Your task to perform on an android device: Is it going to rain this weekend? Image 0: 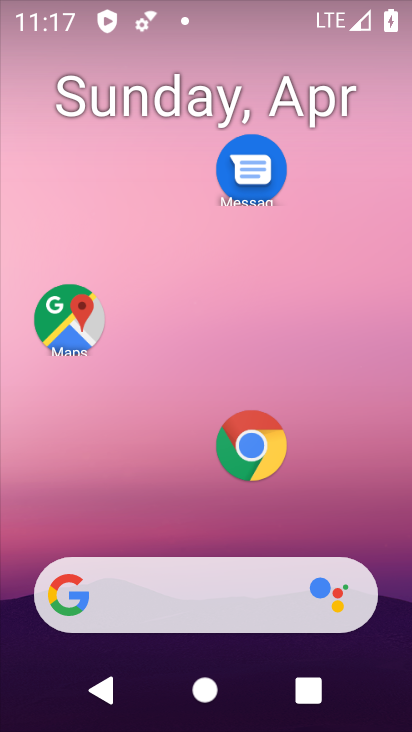
Step 0: drag from (200, 605) to (360, 144)
Your task to perform on an android device: Is it going to rain this weekend? Image 1: 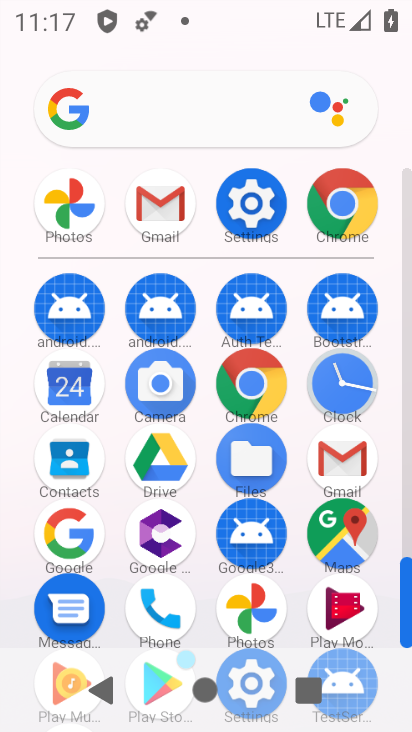
Step 1: click (72, 534)
Your task to perform on an android device: Is it going to rain this weekend? Image 2: 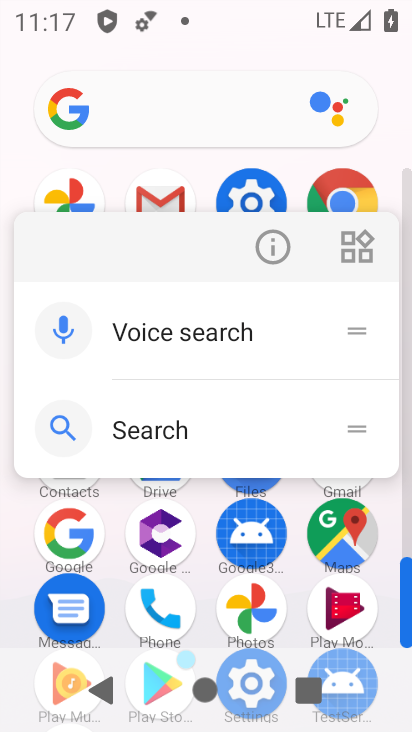
Step 2: click (75, 537)
Your task to perform on an android device: Is it going to rain this weekend? Image 3: 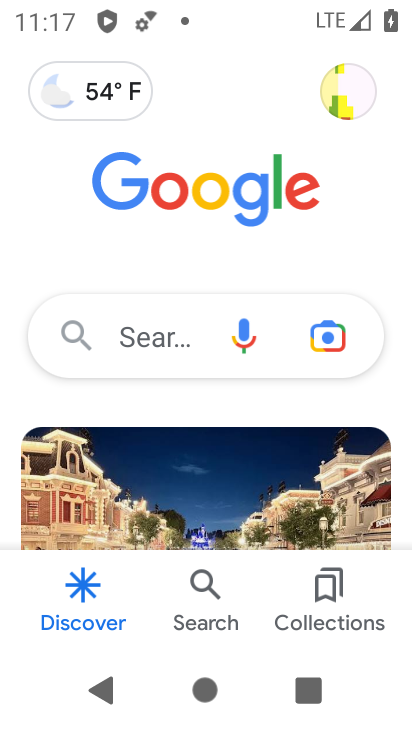
Step 3: click (113, 95)
Your task to perform on an android device: Is it going to rain this weekend? Image 4: 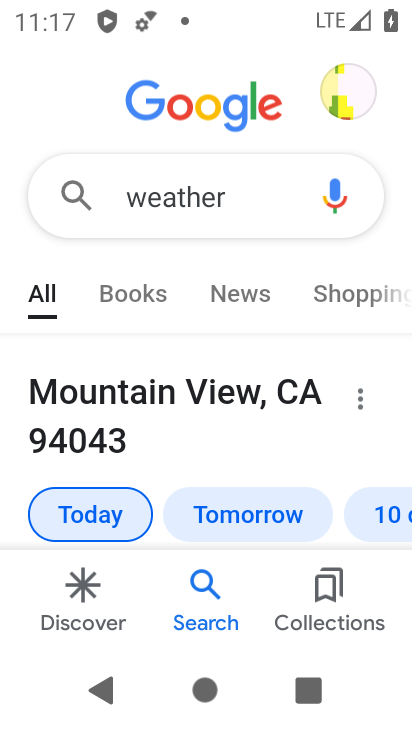
Step 4: click (391, 524)
Your task to perform on an android device: Is it going to rain this weekend? Image 5: 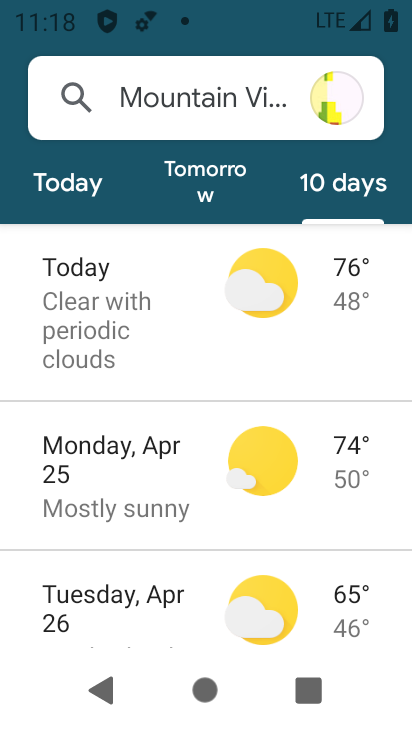
Step 5: task complete